Your task to perform on an android device: Search for nike dri-fit shirts on Nike Image 0: 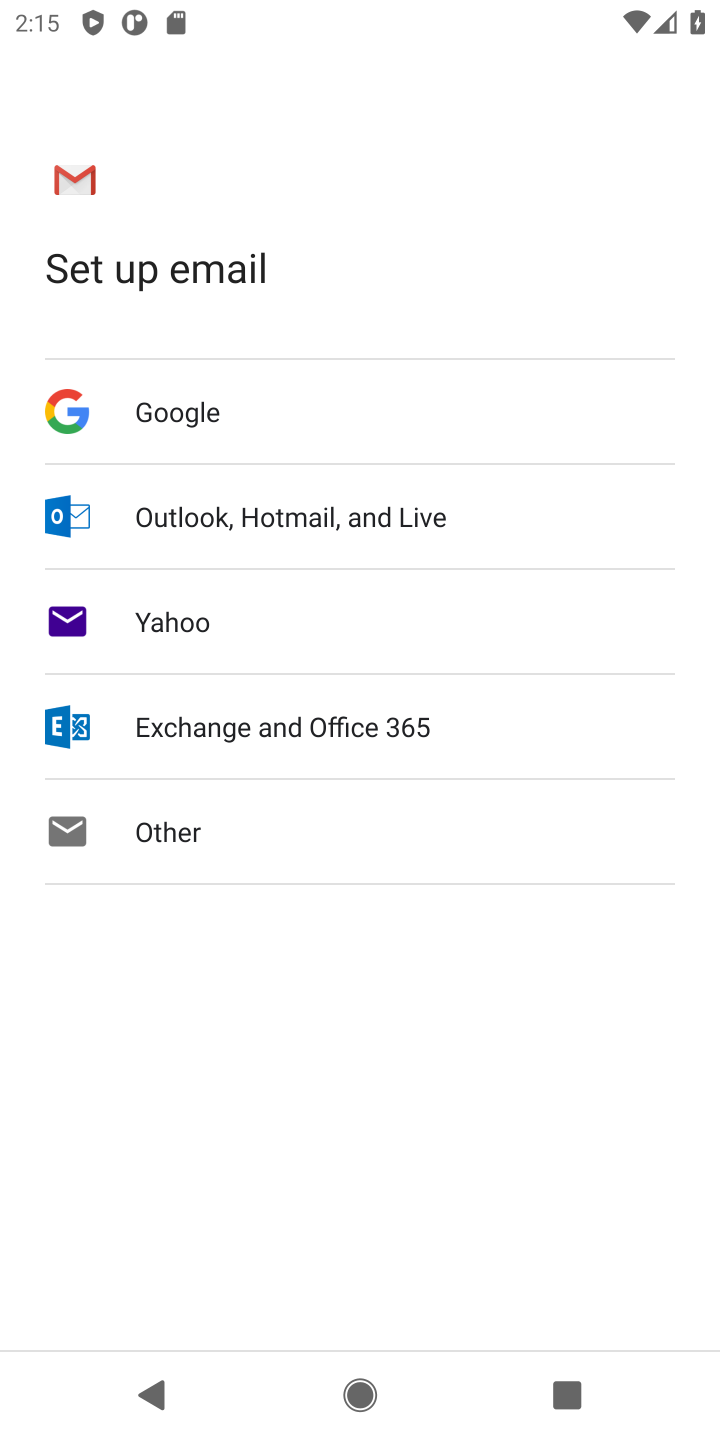
Step 0: press home button
Your task to perform on an android device: Search for nike dri-fit shirts on Nike Image 1: 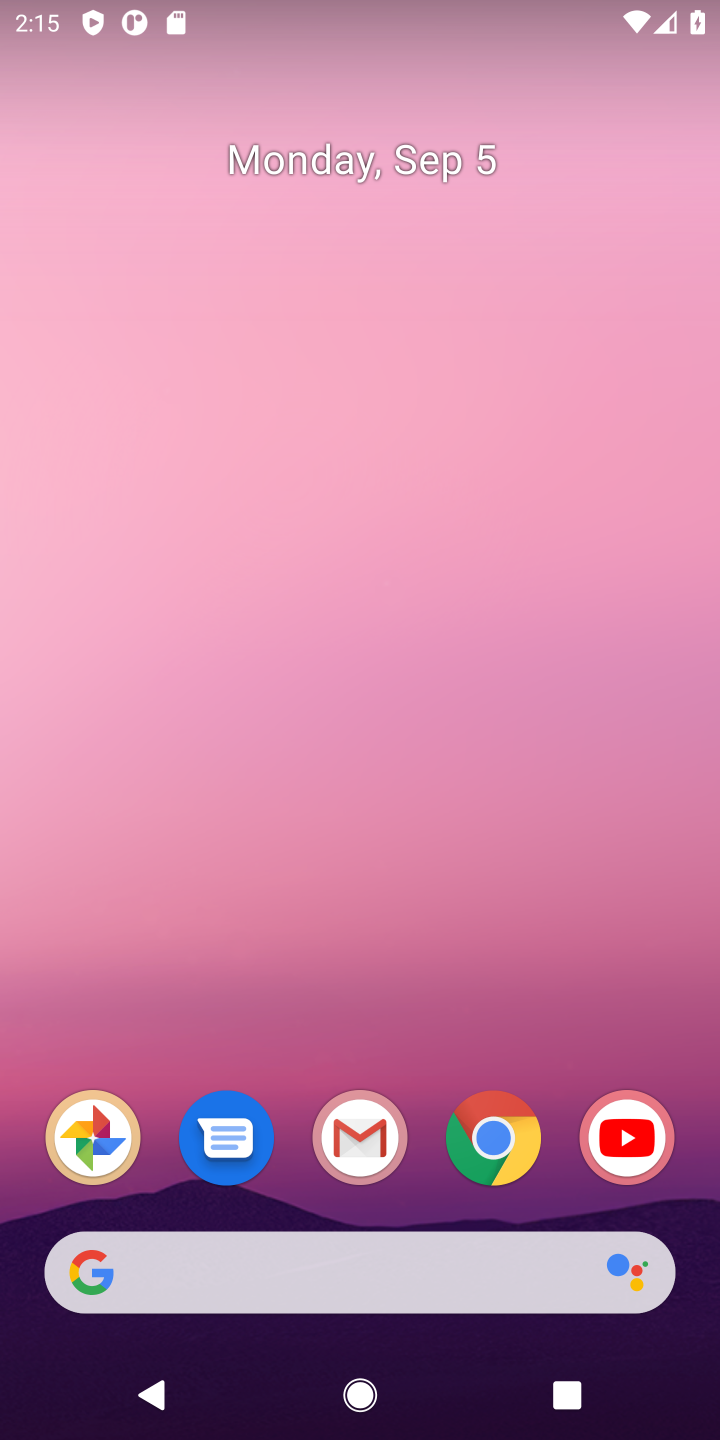
Step 1: click (509, 1141)
Your task to perform on an android device: Search for nike dri-fit shirts on Nike Image 2: 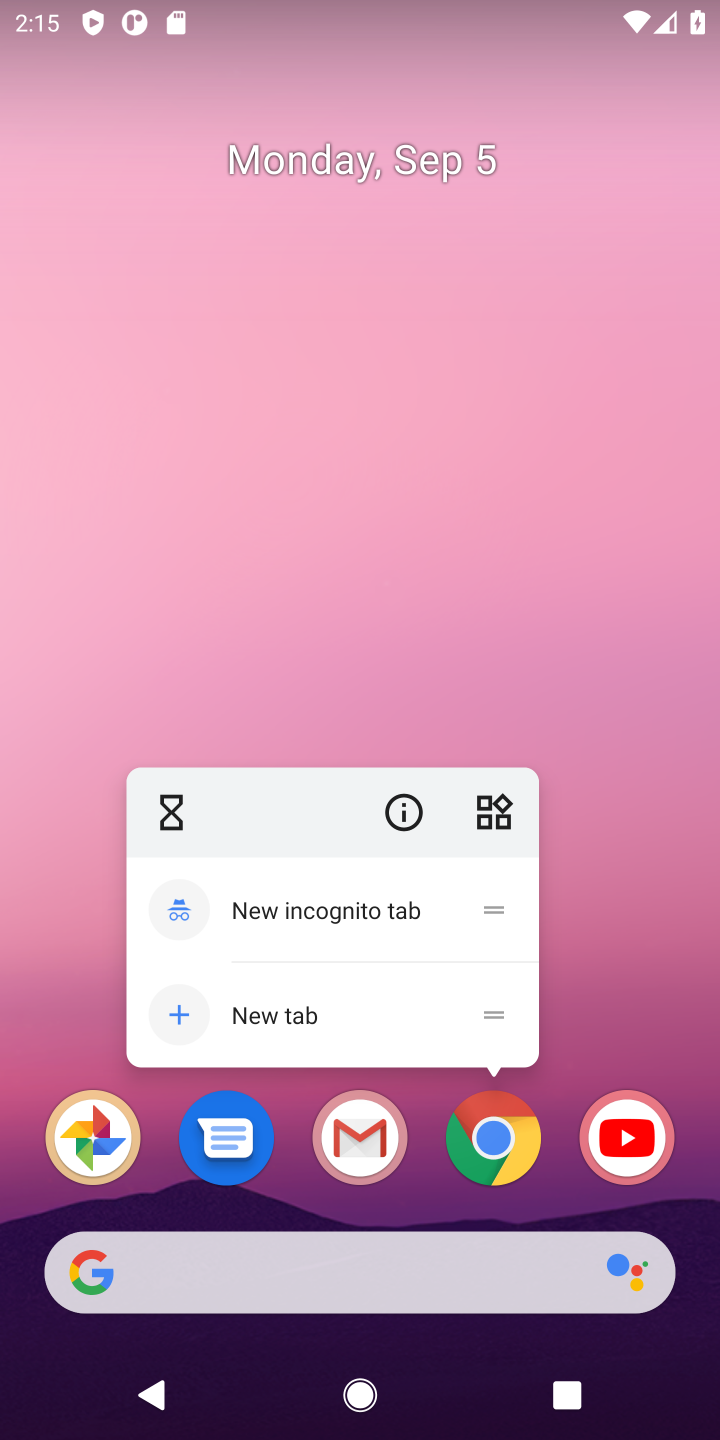
Step 2: click (474, 1146)
Your task to perform on an android device: Search for nike dri-fit shirts on Nike Image 3: 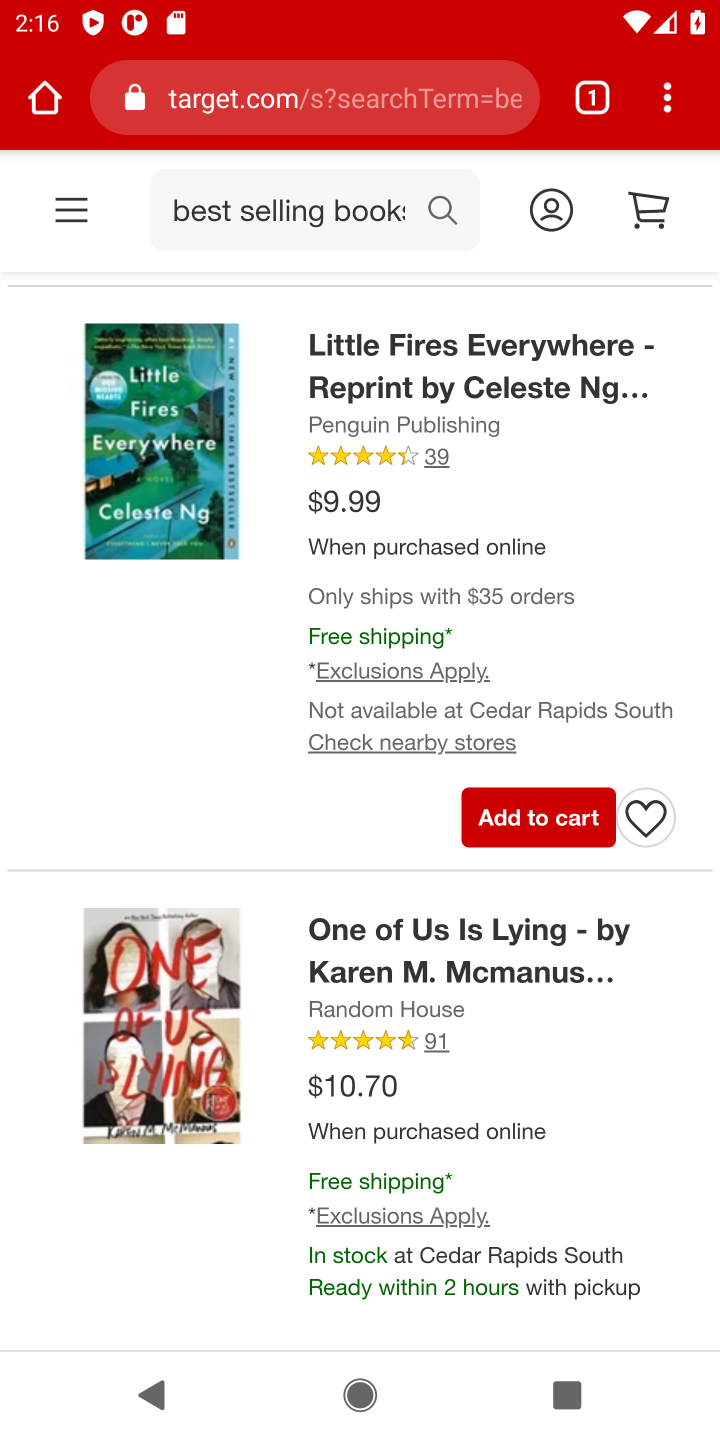
Step 3: click (243, 85)
Your task to perform on an android device: Search for nike dri-fit shirts on Nike Image 4: 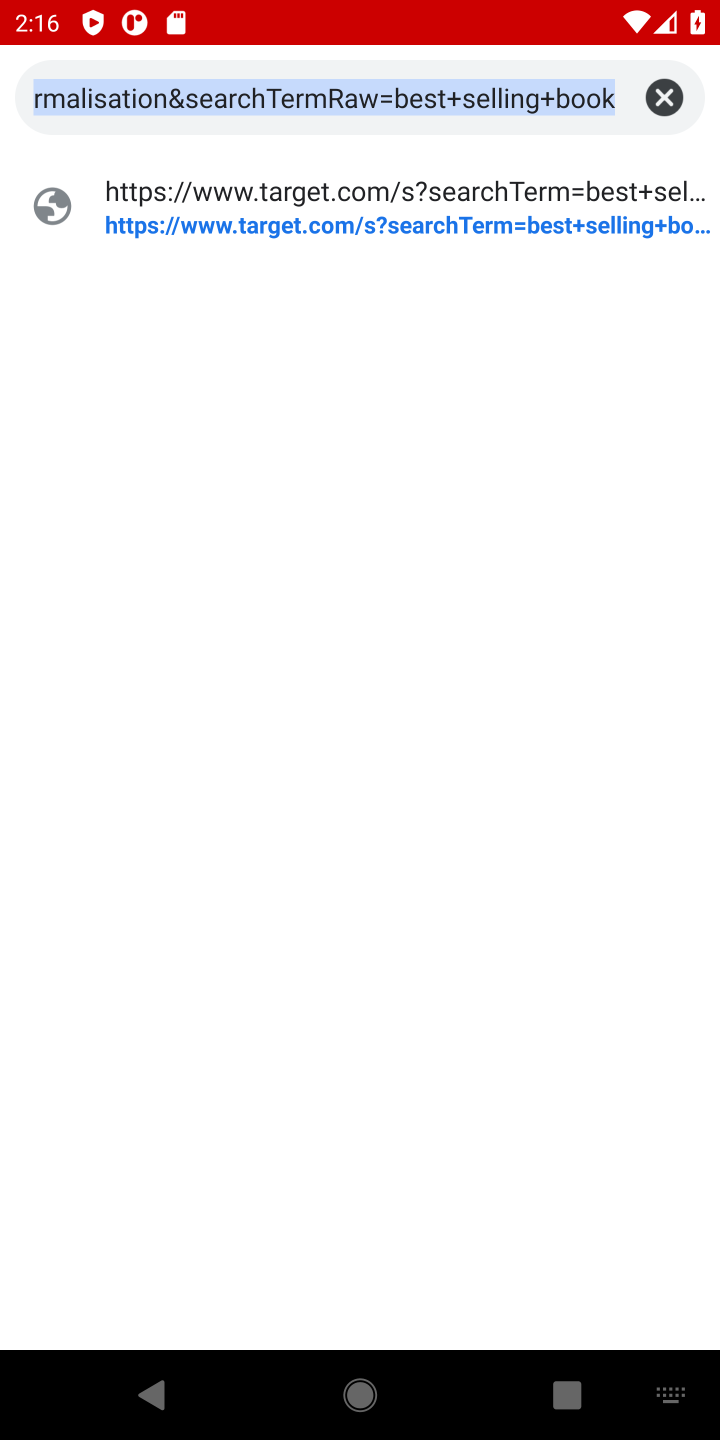
Step 4: type "nike"
Your task to perform on an android device: Search for nike dri-fit shirts on Nike Image 5: 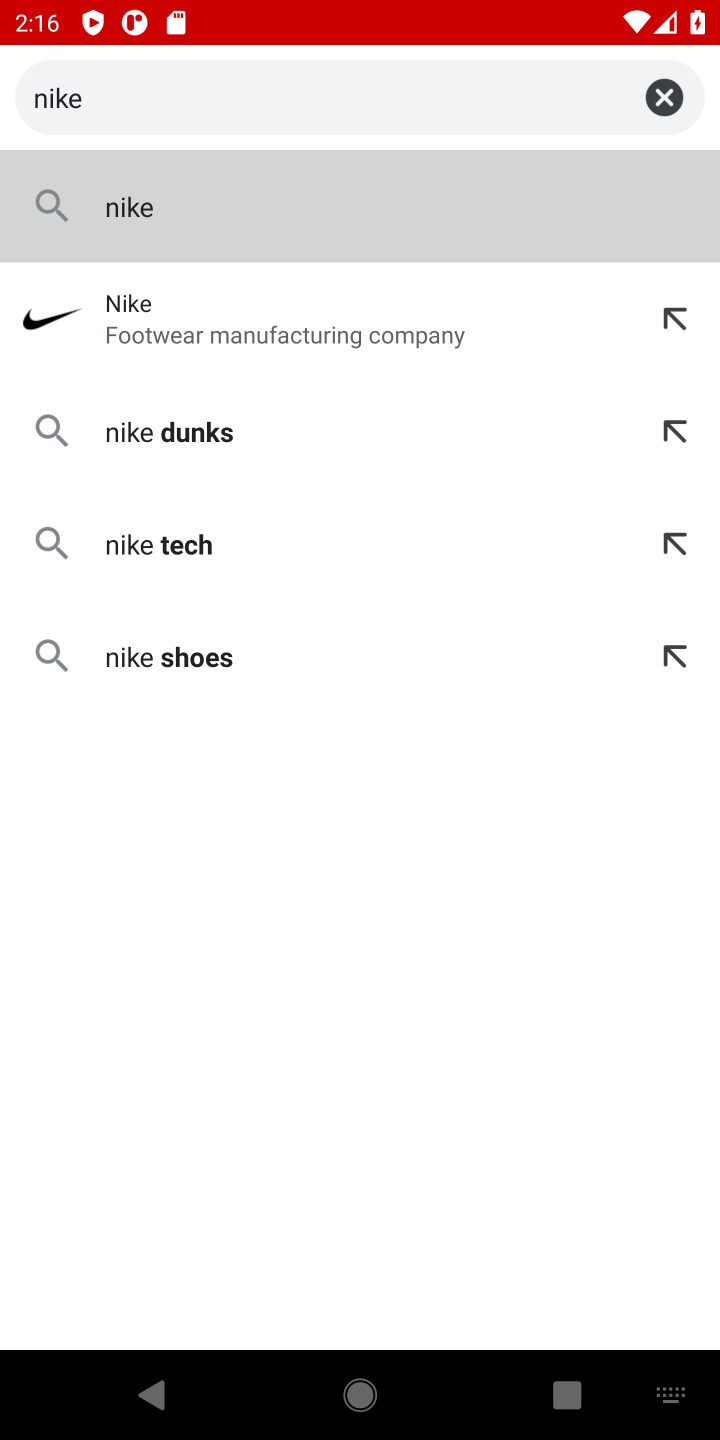
Step 5: click (124, 321)
Your task to perform on an android device: Search for nike dri-fit shirts on Nike Image 6: 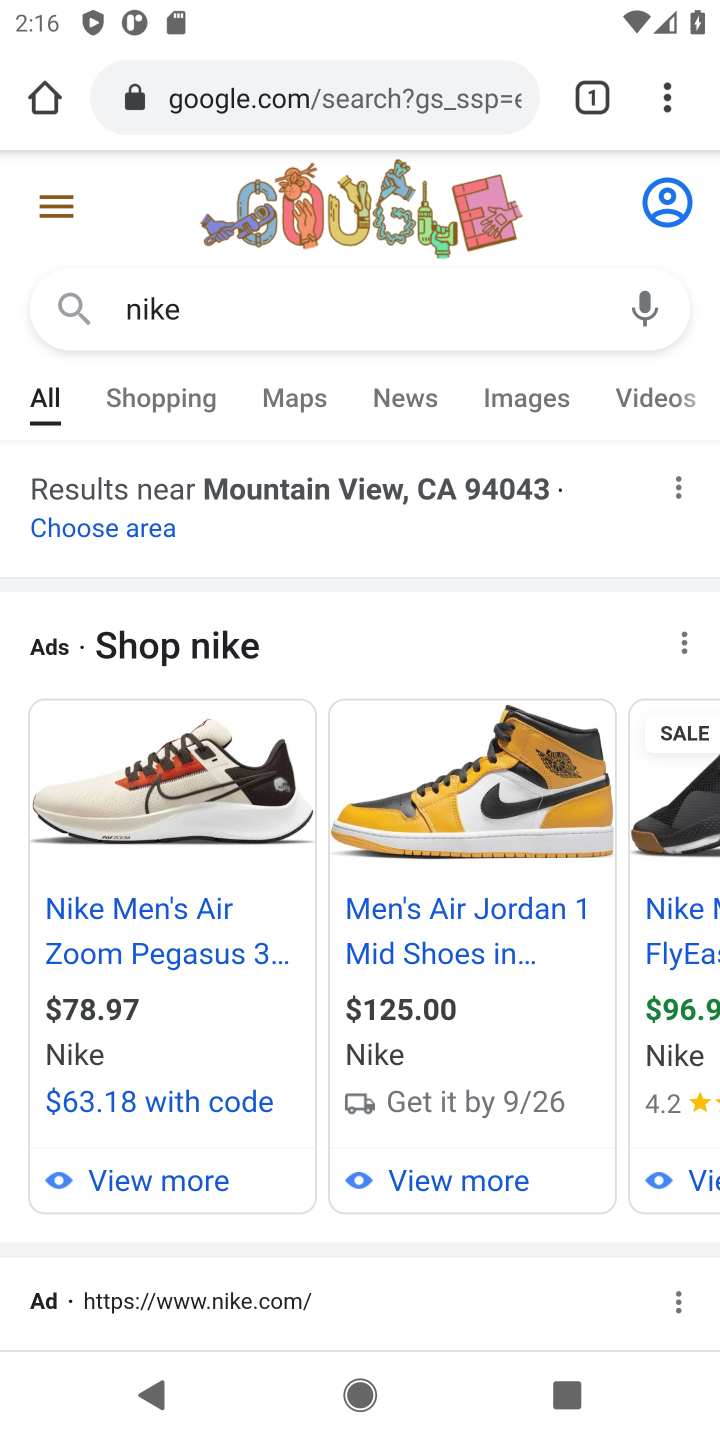
Step 6: drag from (500, 1260) to (589, 832)
Your task to perform on an android device: Search for nike dri-fit shirts on Nike Image 7: 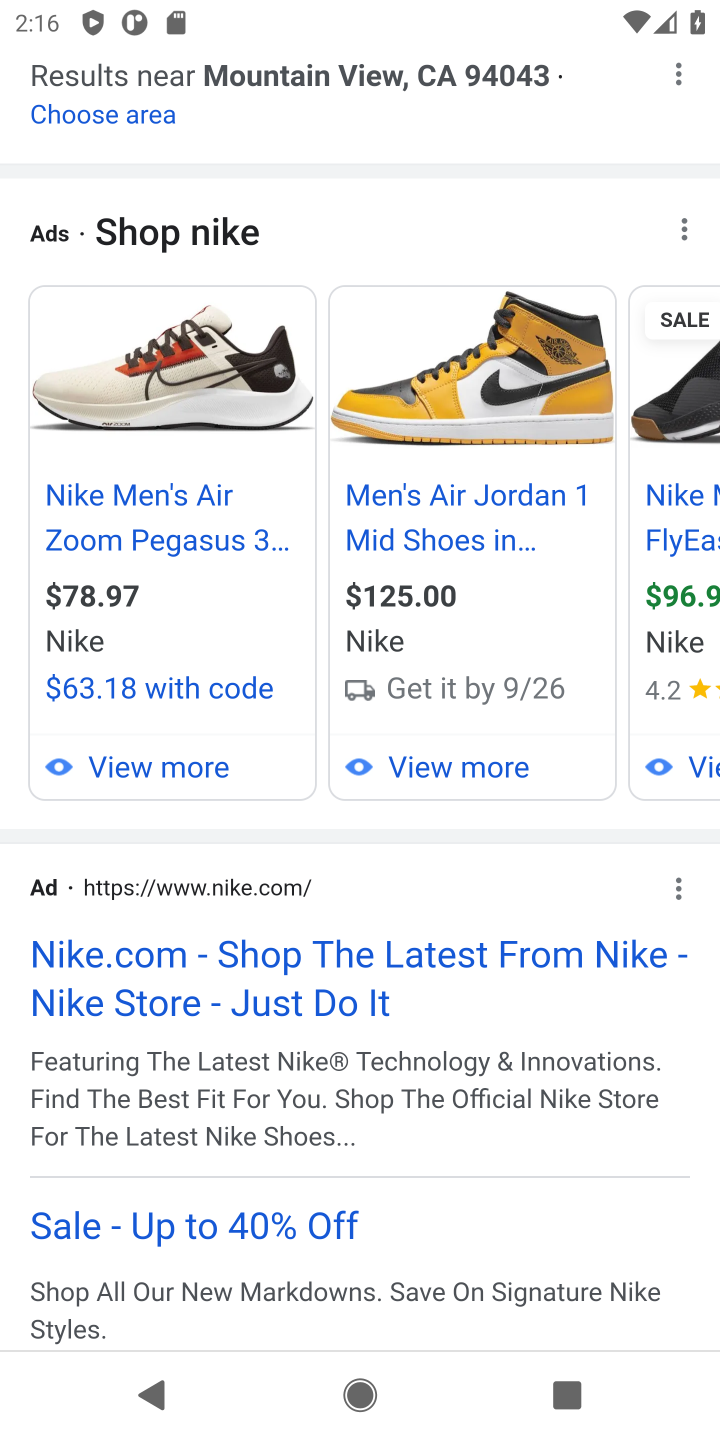
Step 7: click (159, 956)
Your task to perform on an android device: Search for nike dri-fit shirts on Nike Image 8: 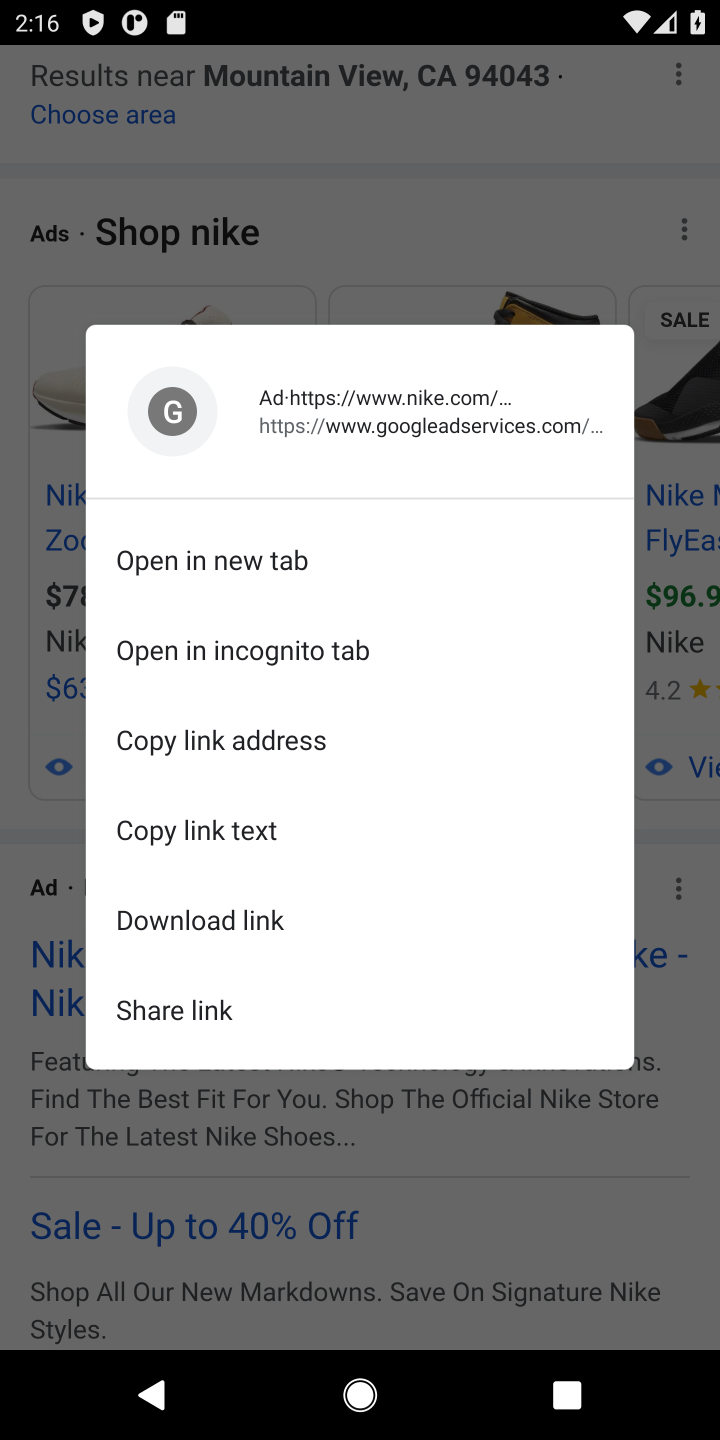
Step 8: click (526, 1218)
Your task to perform on an android device: Search for nike dri-fit shirts on Nike Image 9: 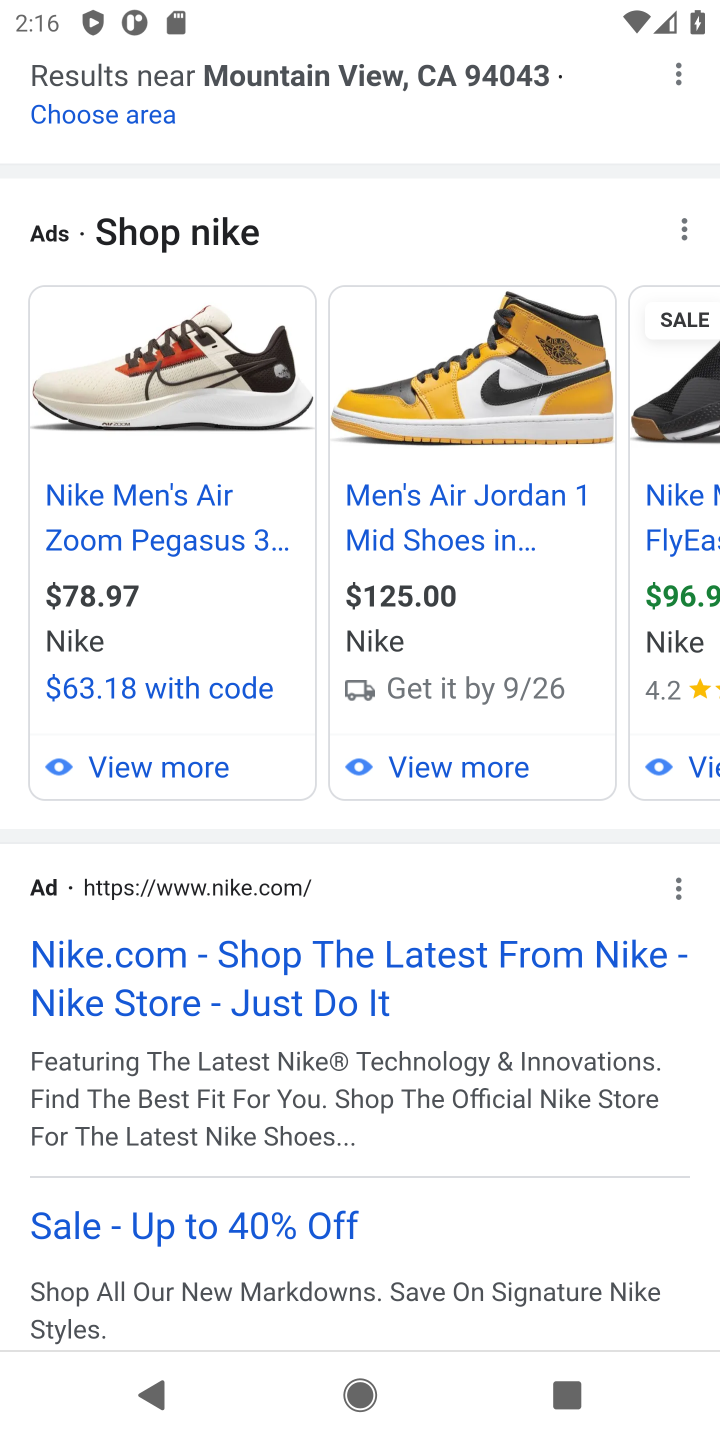
Step 9: click (688, 1200)
Your task to perform on an android device: Search for nike dri-fit shirts on Nike Image 10: 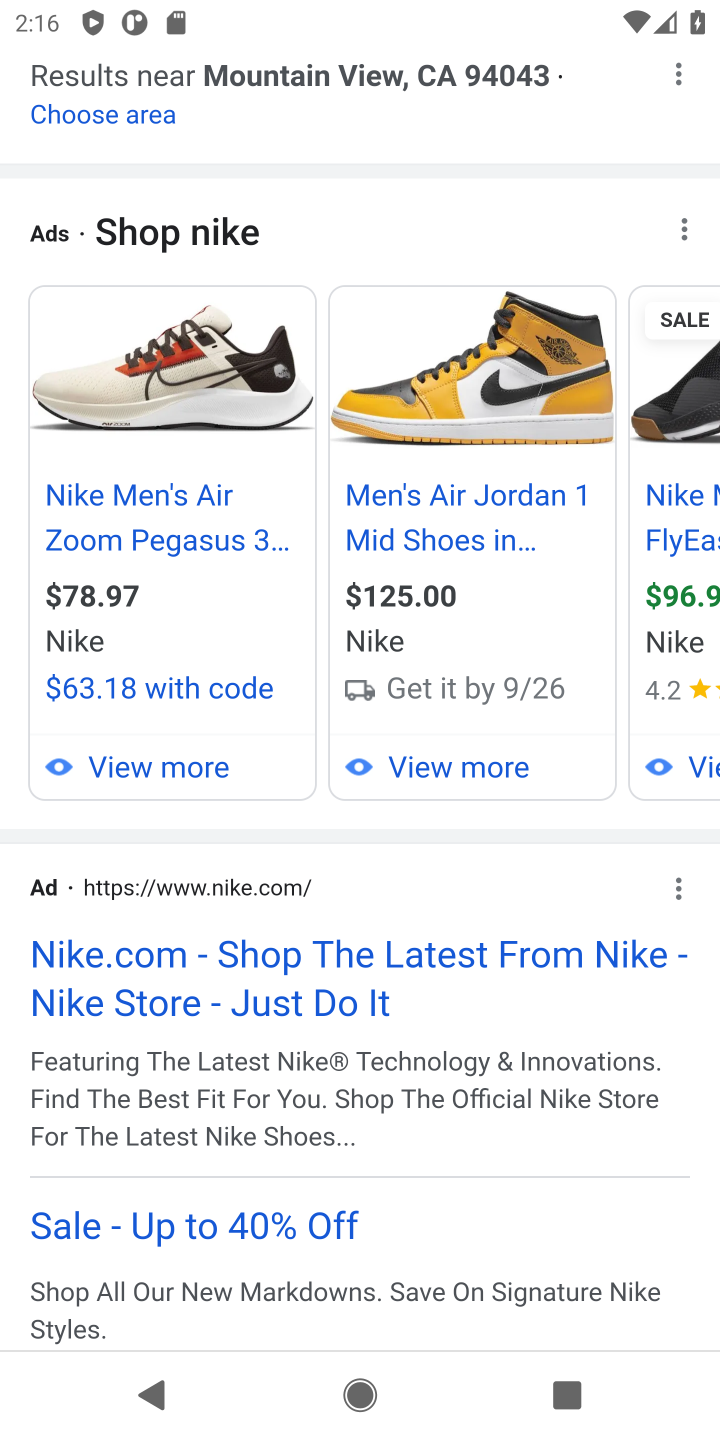
Step 10: click (171, 963)
Your task to perform on an android device: Search for nike dri-fit shirts on Nike Image 11: 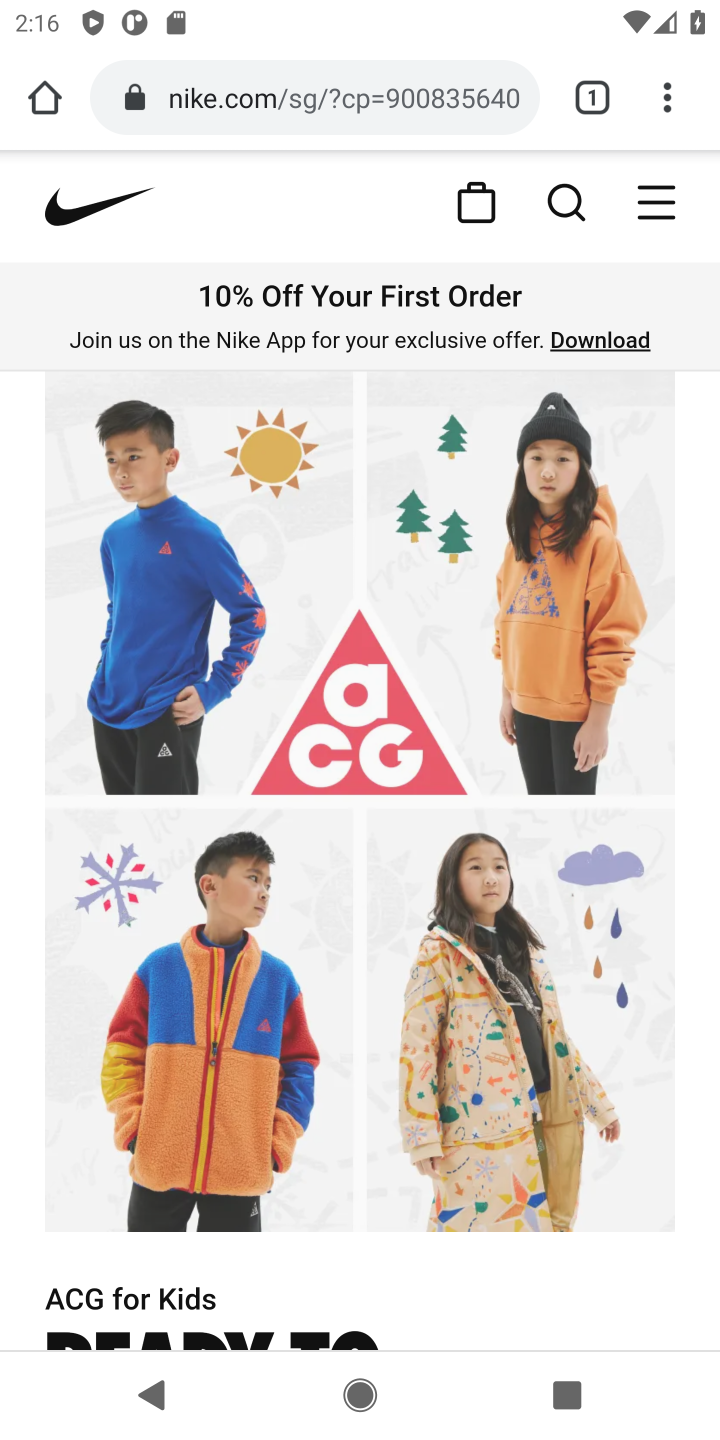
Step 11: click (551, 199)
Your task to perform on an android device: Search for nike dri-fit shirts on Nike Image 12: 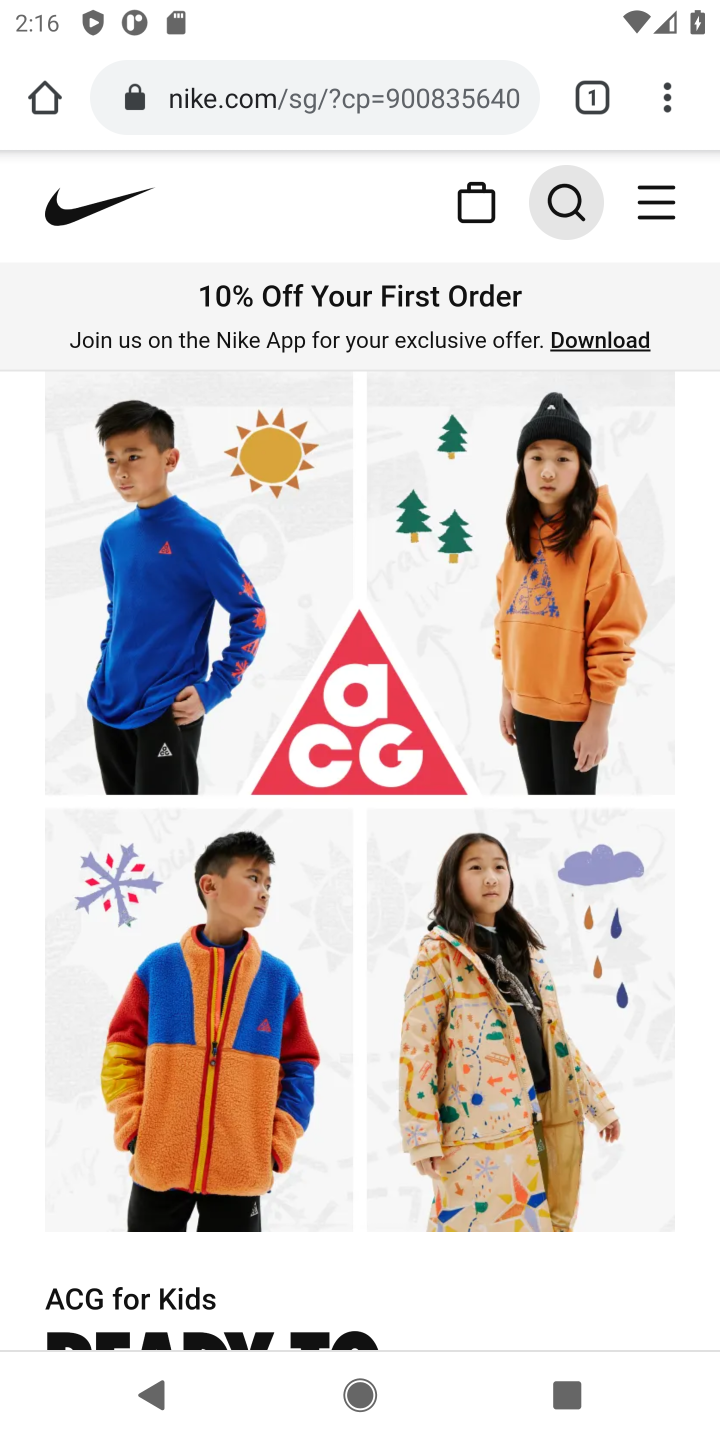
Step 12: click (555, 211)
Your task to perform on an android device: Search for nike dri-fit shirts on Nike Image 13: 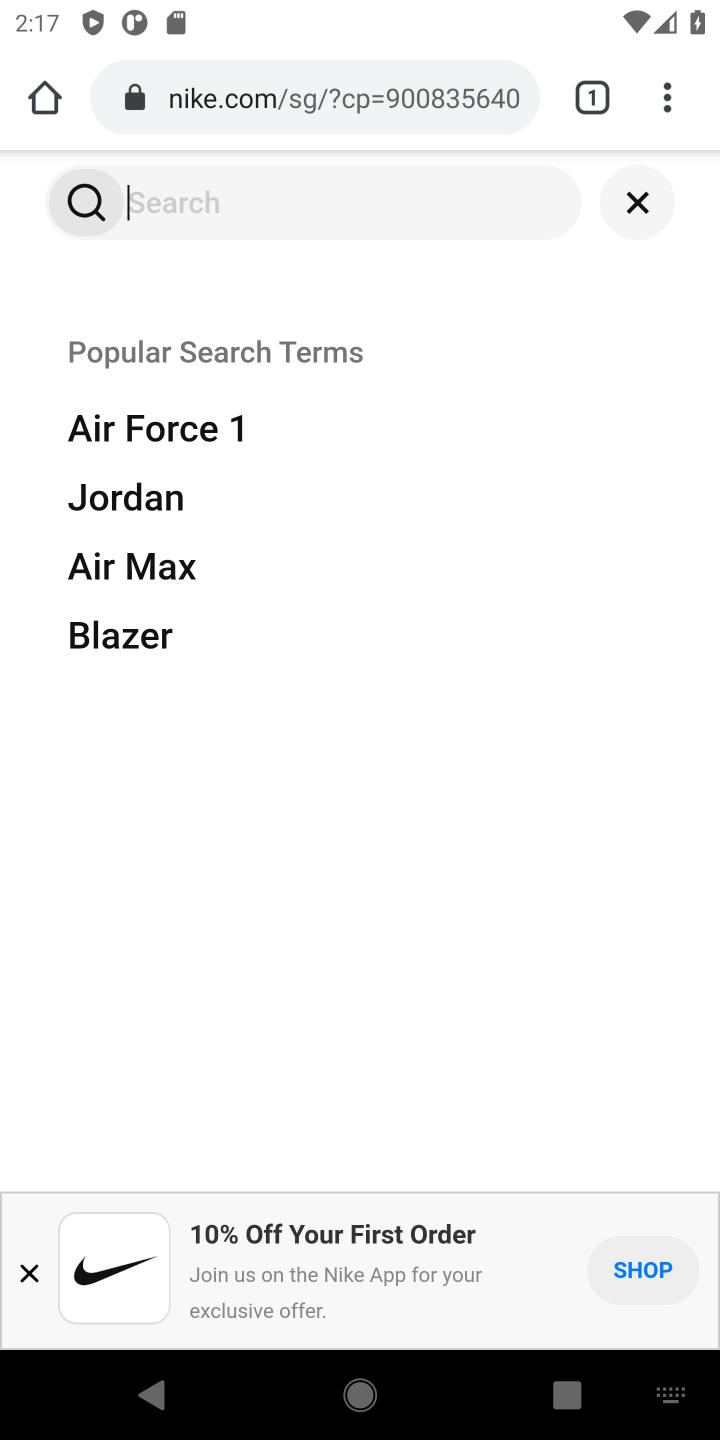
Step 13: type "dri fit shirts"
Your task to perform on an android device: Search for nike dri-fit shirts on Nike Image 14: 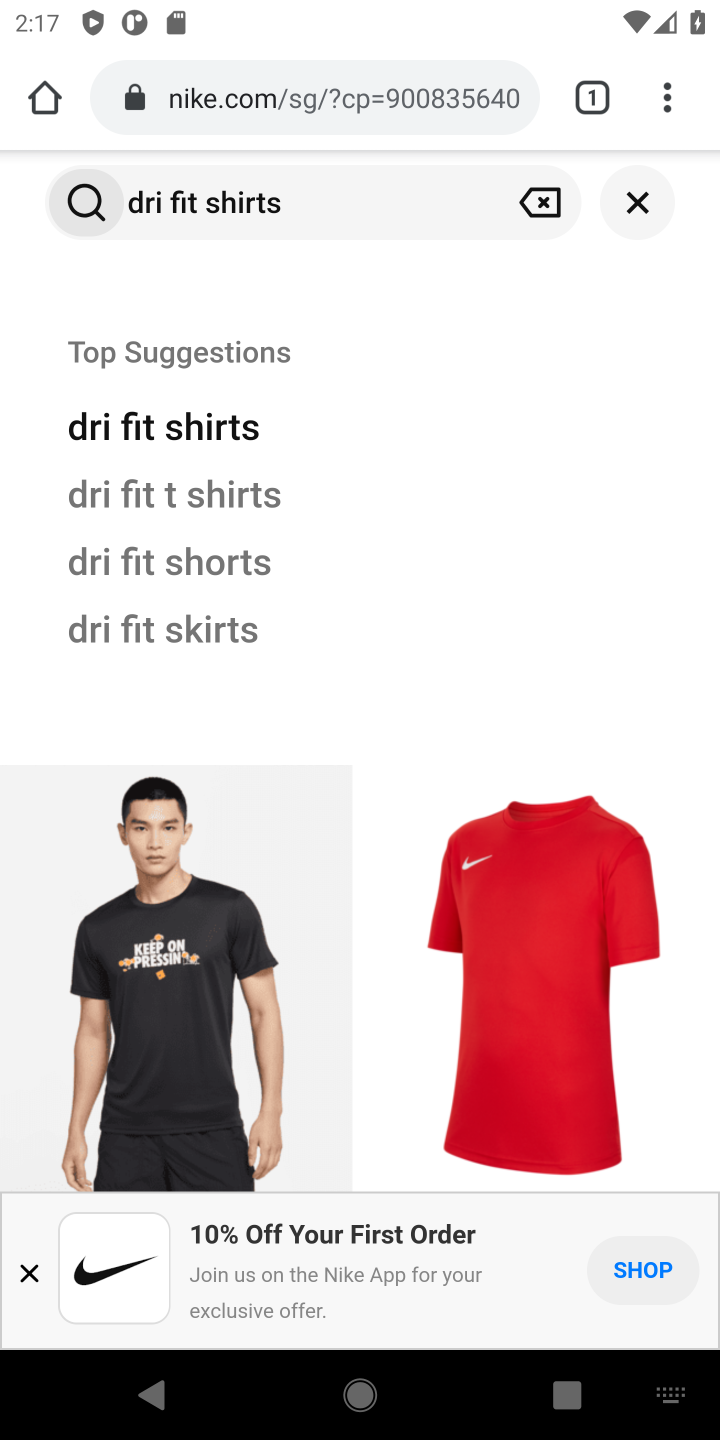
Step 14: drag from (463, 978) to (502, 538)
Your task to perform on an android device: Search for nike dri-fit shirts on Nike Image 15: 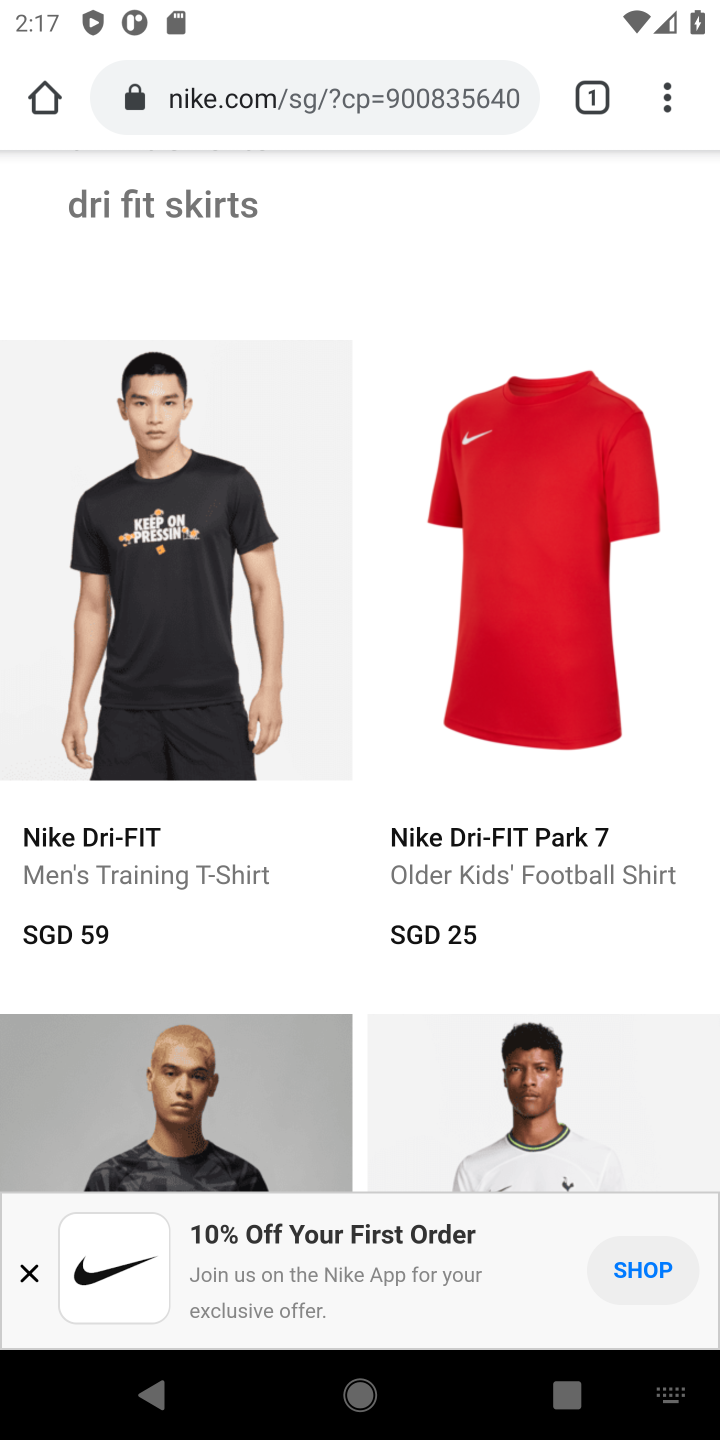
Step 15: drag from (660, 802) to (583, 509)
Your task to perform on an android device: Search for nike dri-fit shirts on Nike Image 16: 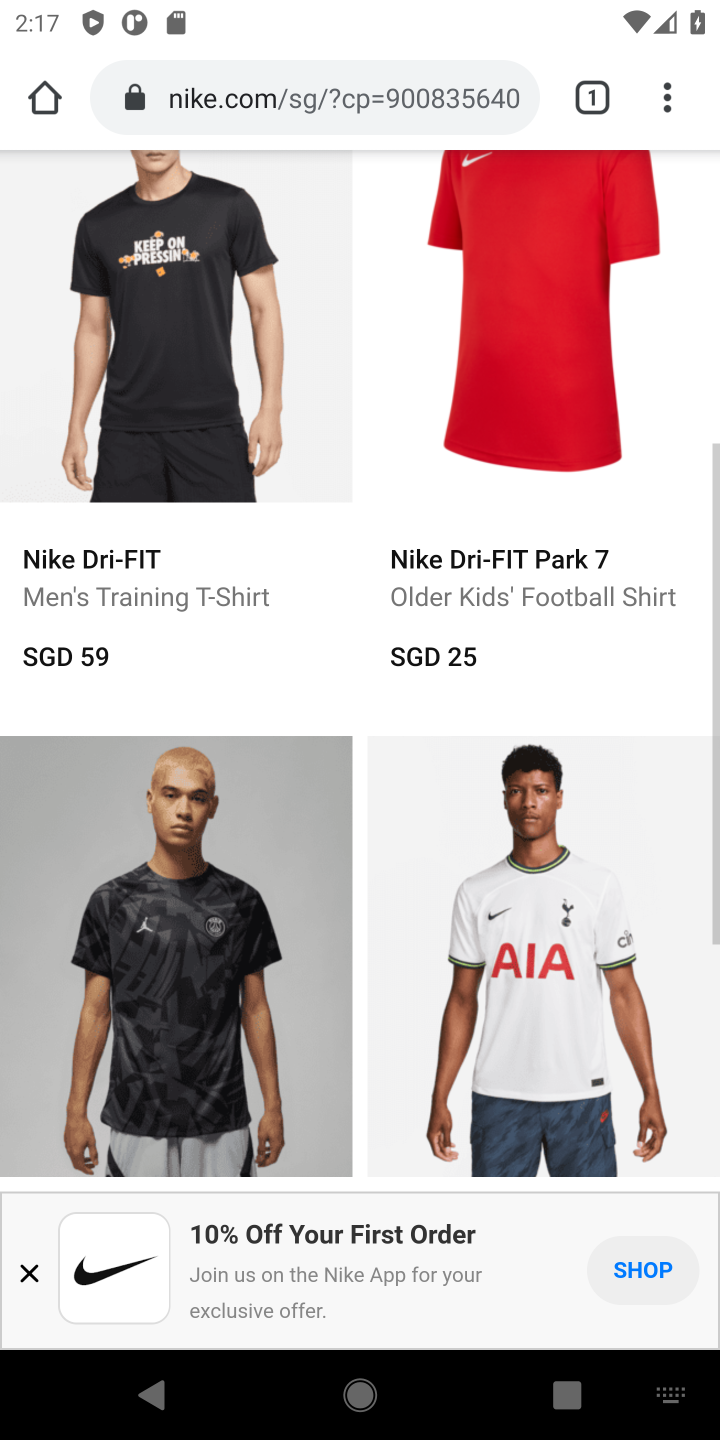
Step 16: click (549, 549)
Your task to perform on an android device: Search for nike dri-fit shirts on Nike Image 17: 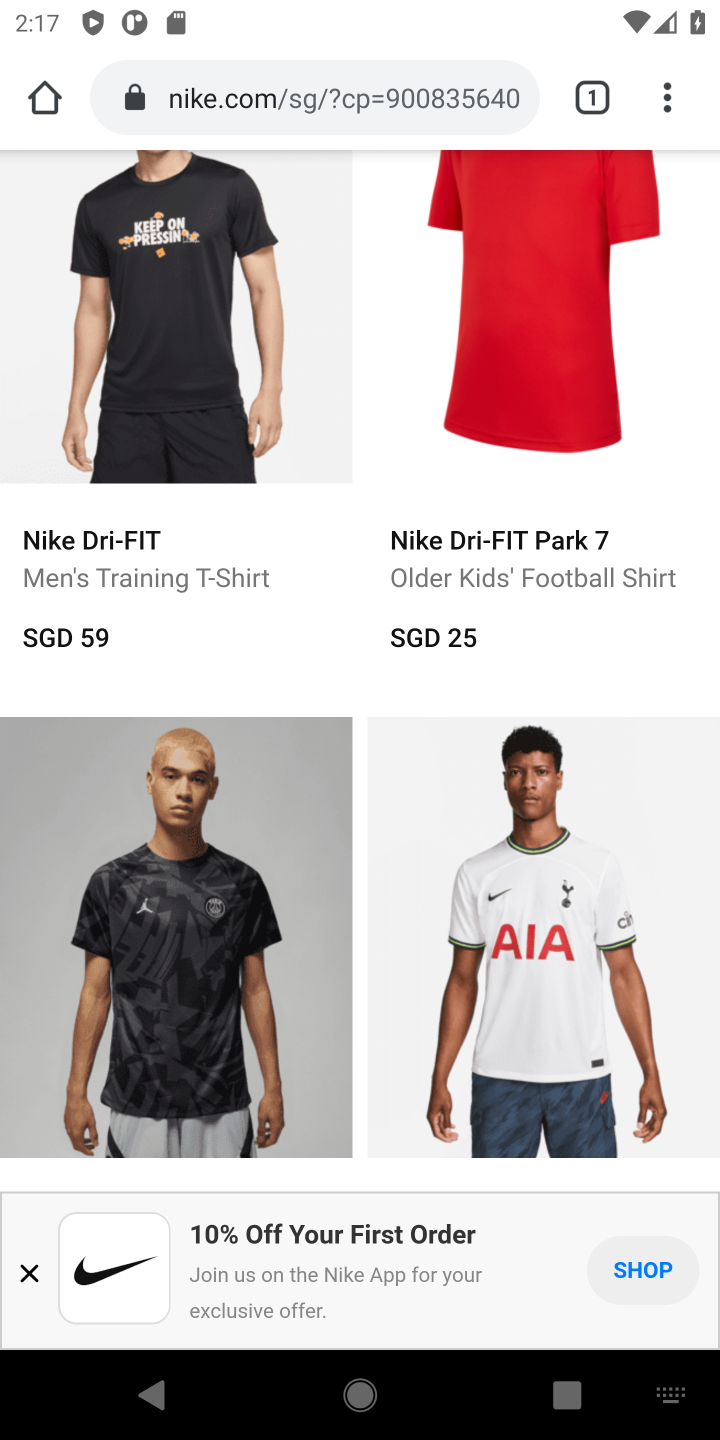
Step 17: drag from (554, 1046) to (560, 1134)
Your task to perform on an android device: Search for nike dri-fit shirts on Nike Image 18: 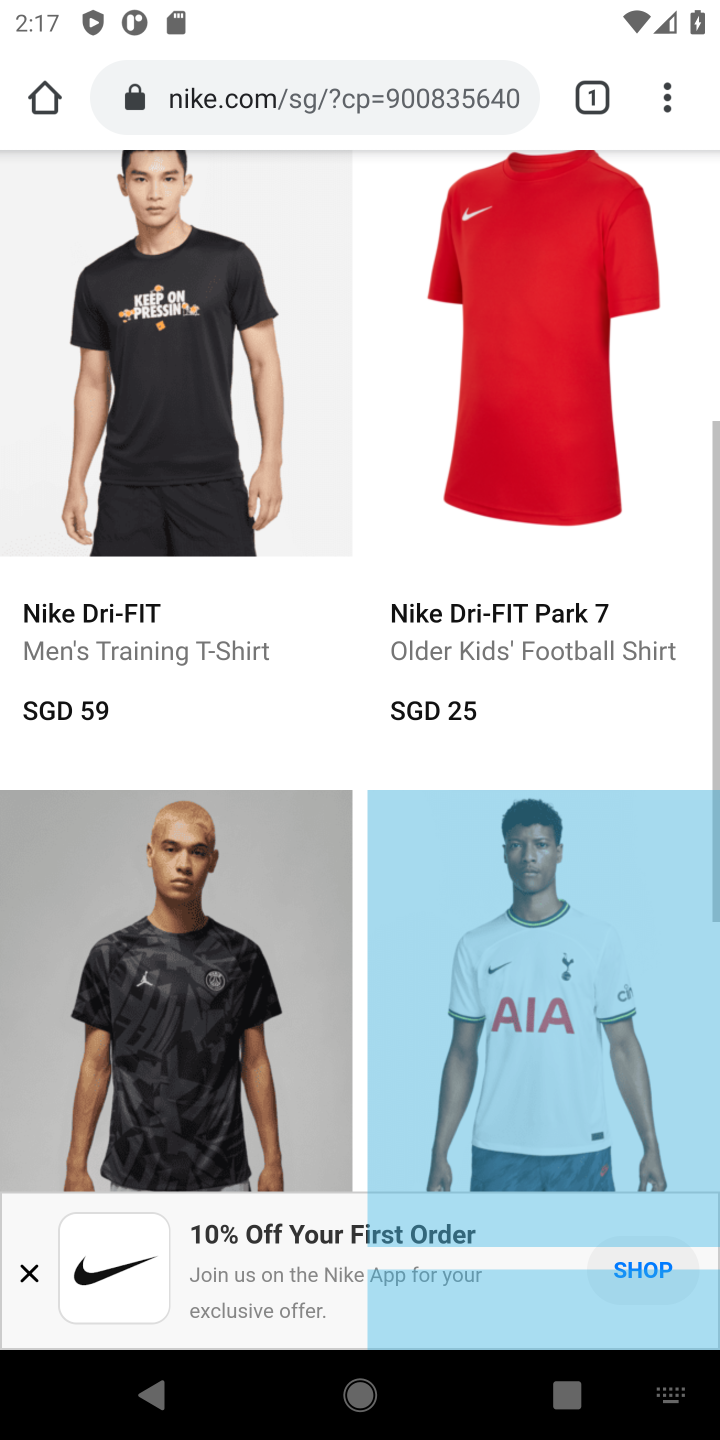
Step 18: drag from (470, 544) to (585, 269)
Your task to perform on an android device: Search for nike dri-fit shirts on Nike Image 19: 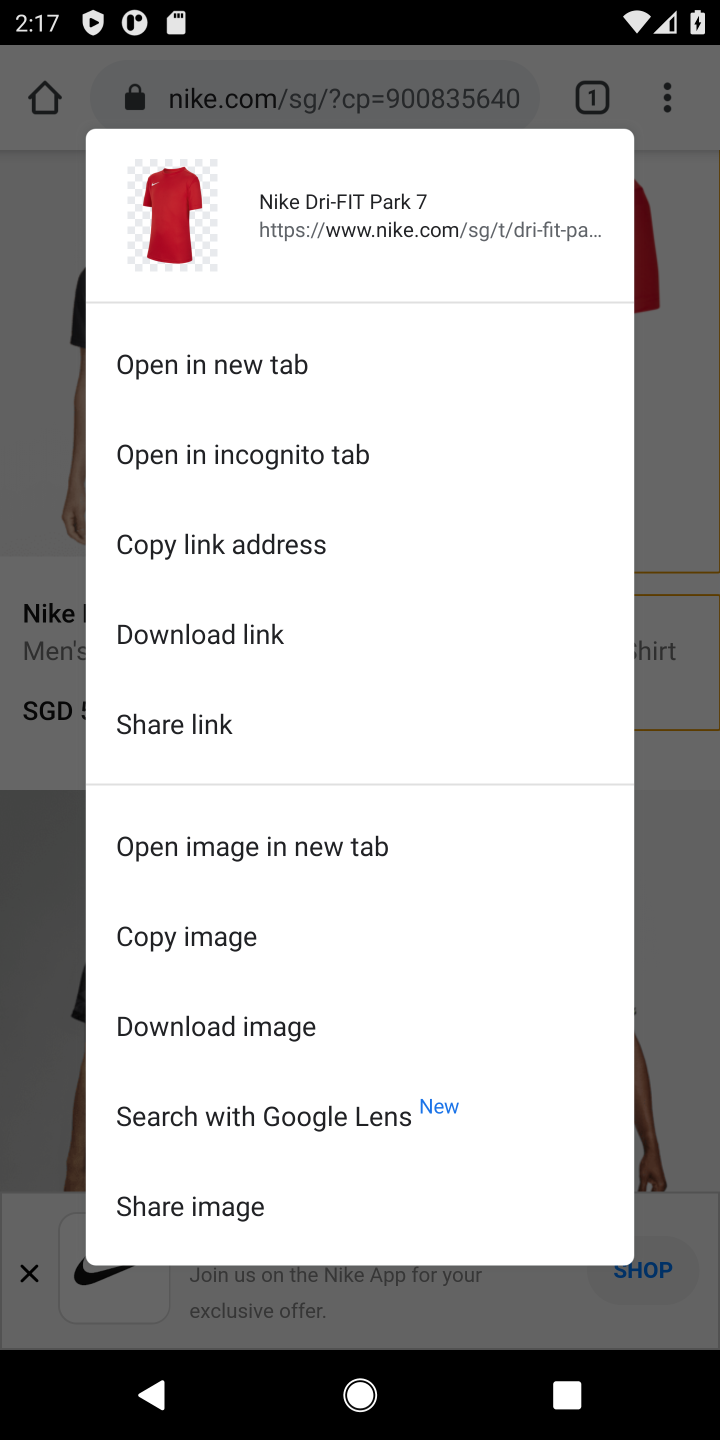
Step 19: click (717, 856)
Your task to perform on an android device: Search for nike dri-fit shirts on Nike Image 20: 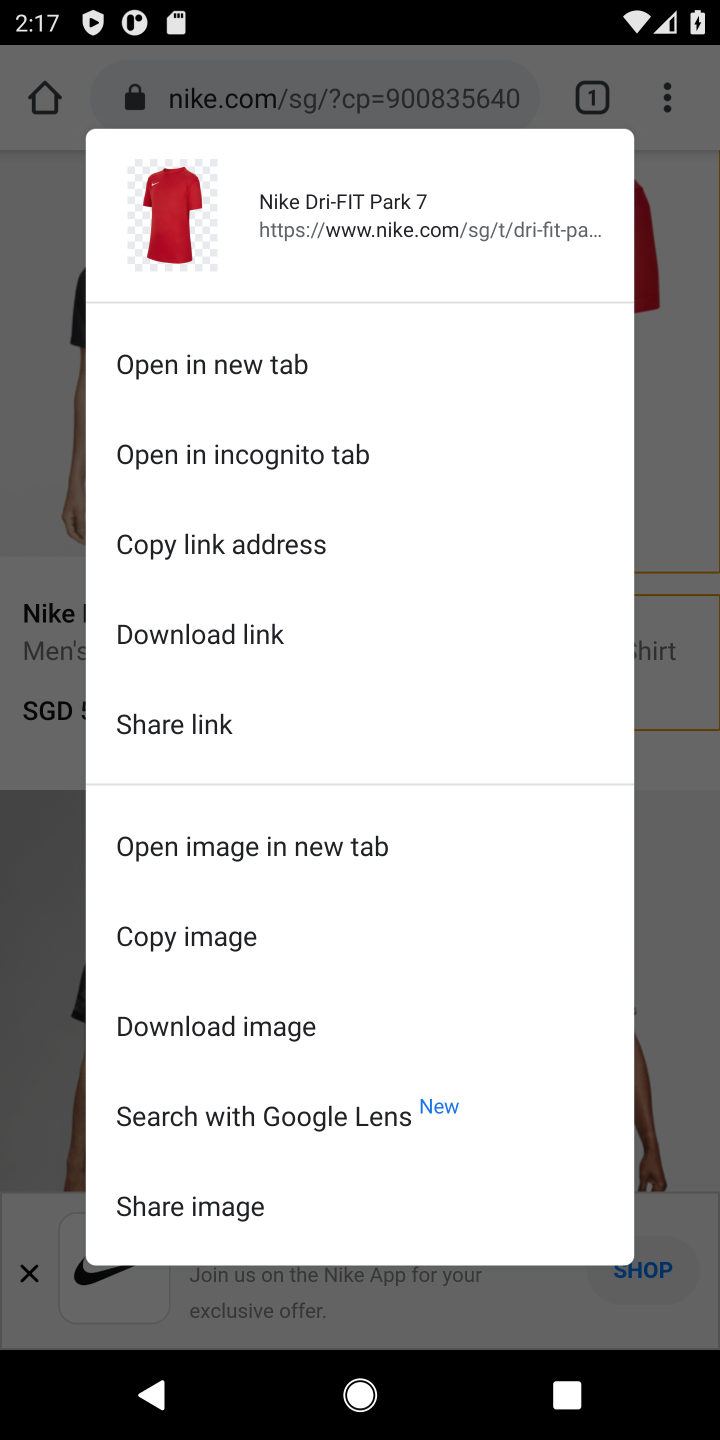
Step 20: task complete